Your task to perform on an android device: toggle notifications settings in the gmail app Image 0: 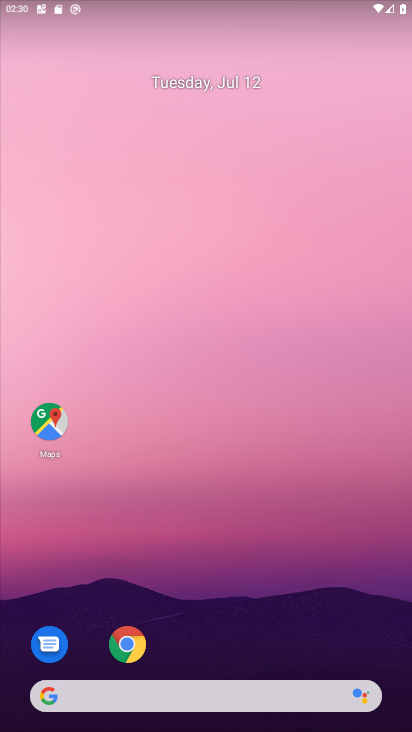
Step 0: drag from (214, 666) to (215, 81)
Your task to perform on an android device: toggle notifications settings in the gmail app Image 1: 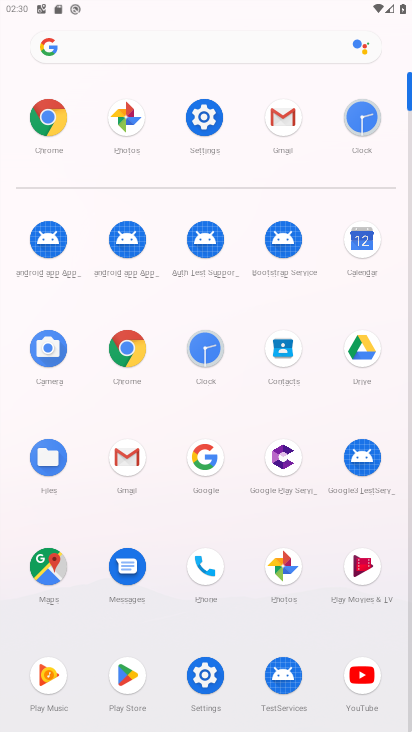
Step 1: click (127, 457)
Your task to perform on an android device: toggle notifications settings in the gmail app Image 2: 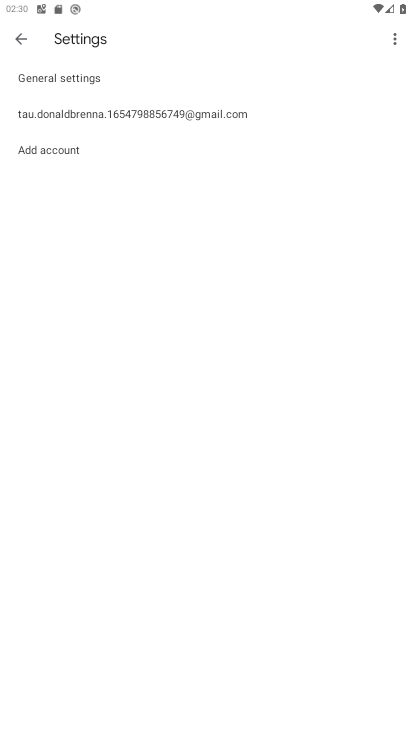
Step 2: click (39, 85)
Your task to perform on an android device: toggle notifications settings in the gmail app Image 3: 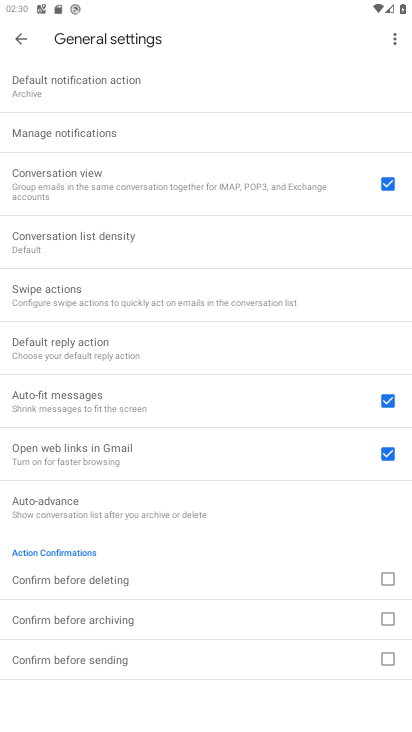
Step 3: click (62, 126)
Your task to perform on an android device: toggle notifications settings in the gmail app Image 4: 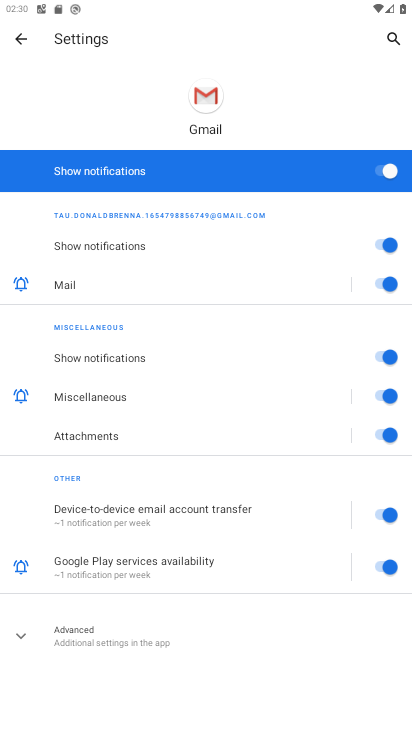
Step 4: click (388, 170)
Your task to perform on an android device: toggle notifications settings in the gmail app Image 5: 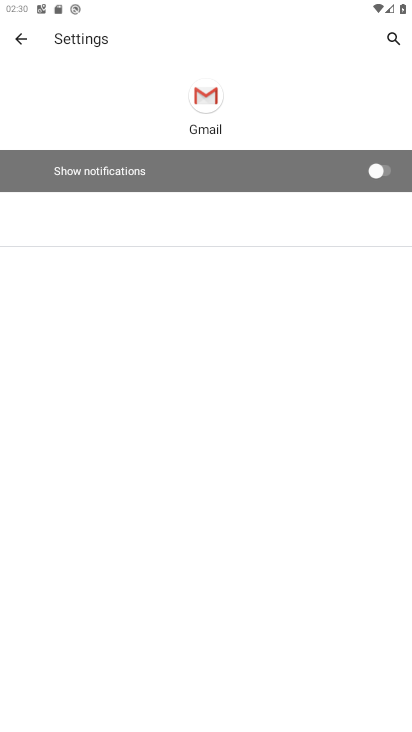
Step 5: task complete